Your task to perform on an android device: find which apps use the phone's location Image 0: 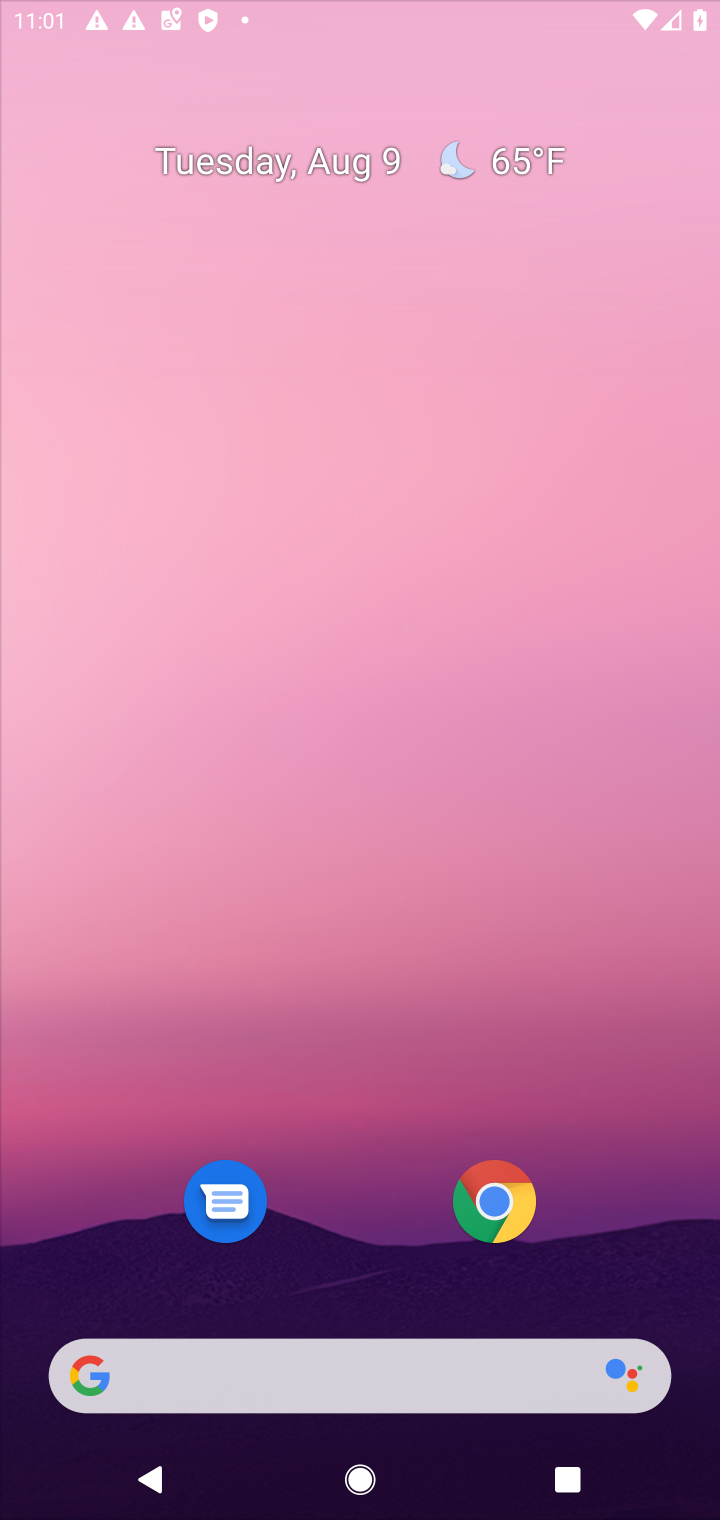
Step 0: press home button
Your task to perform on an android device: find which apps use the phone's location Image 1: 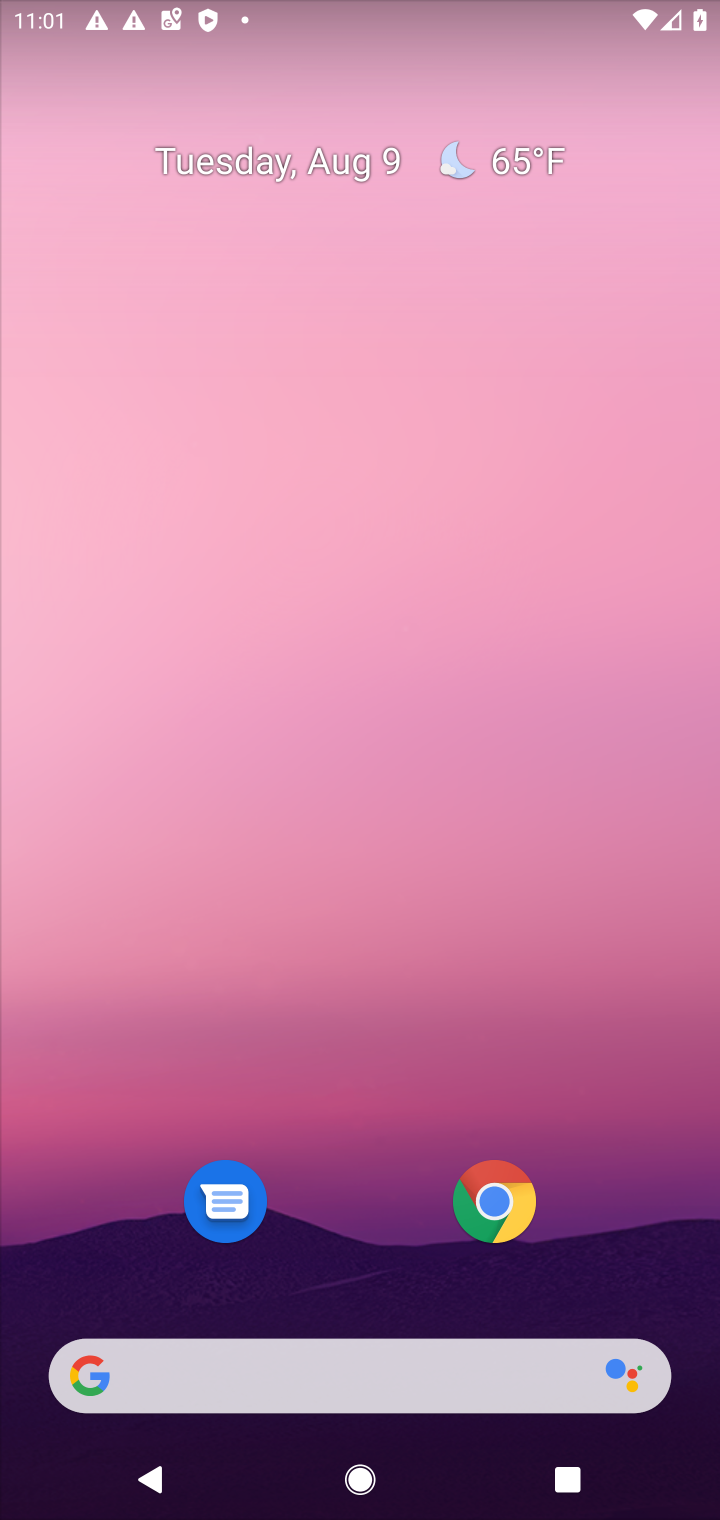
Step 1: drag from (341, 1090) to (369, 206)
Your task to perform on an android device: find which apps use the phone's location Image 2: 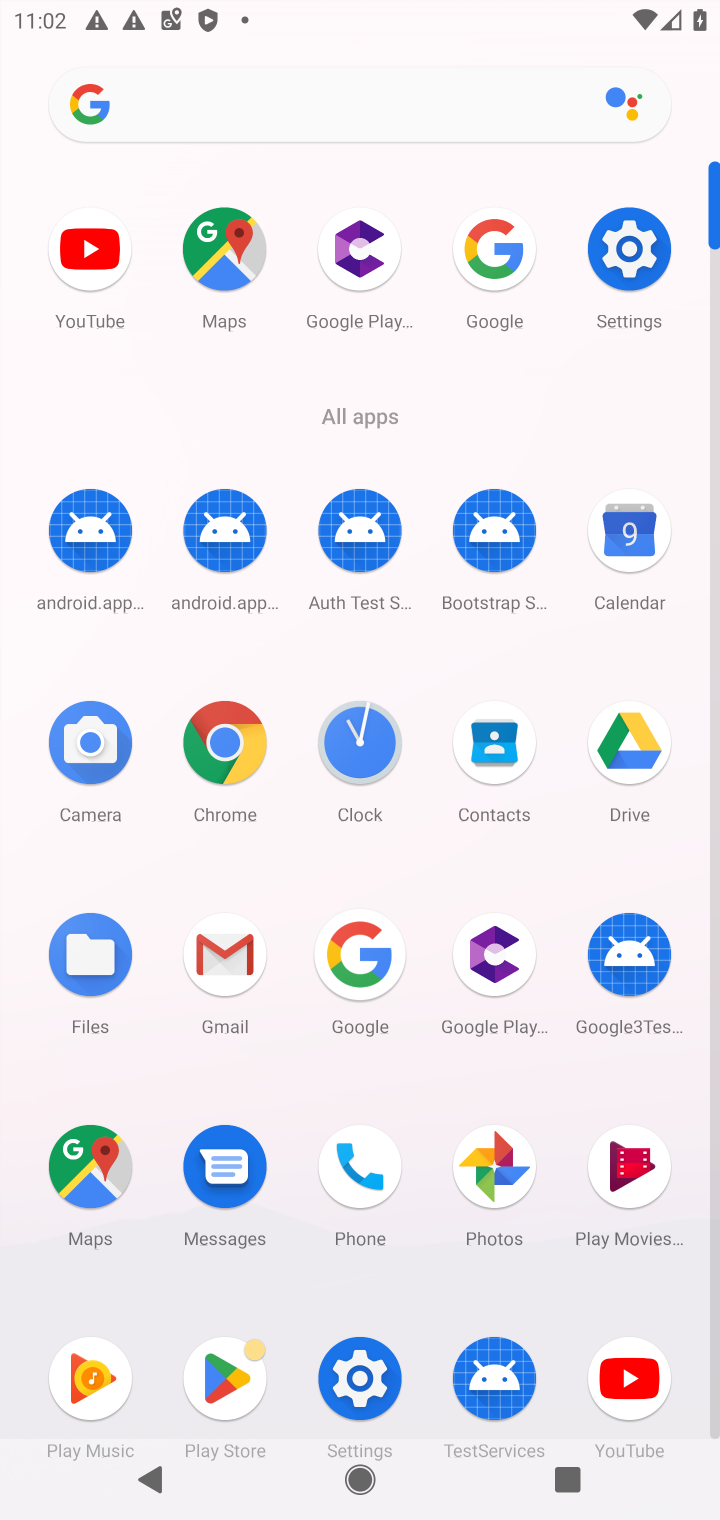
Step 2: click (625, 222)
Your task to perform on an android device: find which apps use the phone's location Image 3: 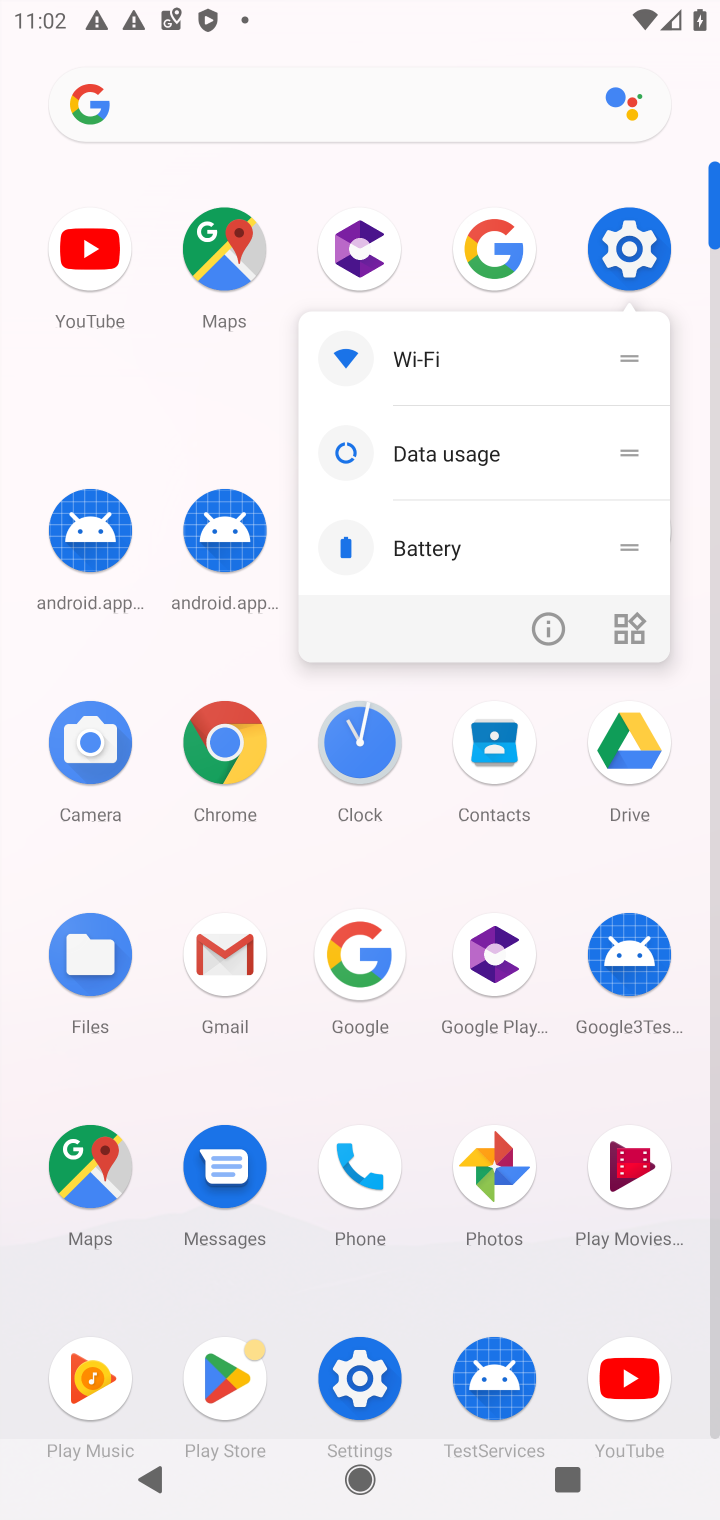
Step 3: click (658, 265)
Your task to perform on an android device: find which apps use the phone's location Image 4: 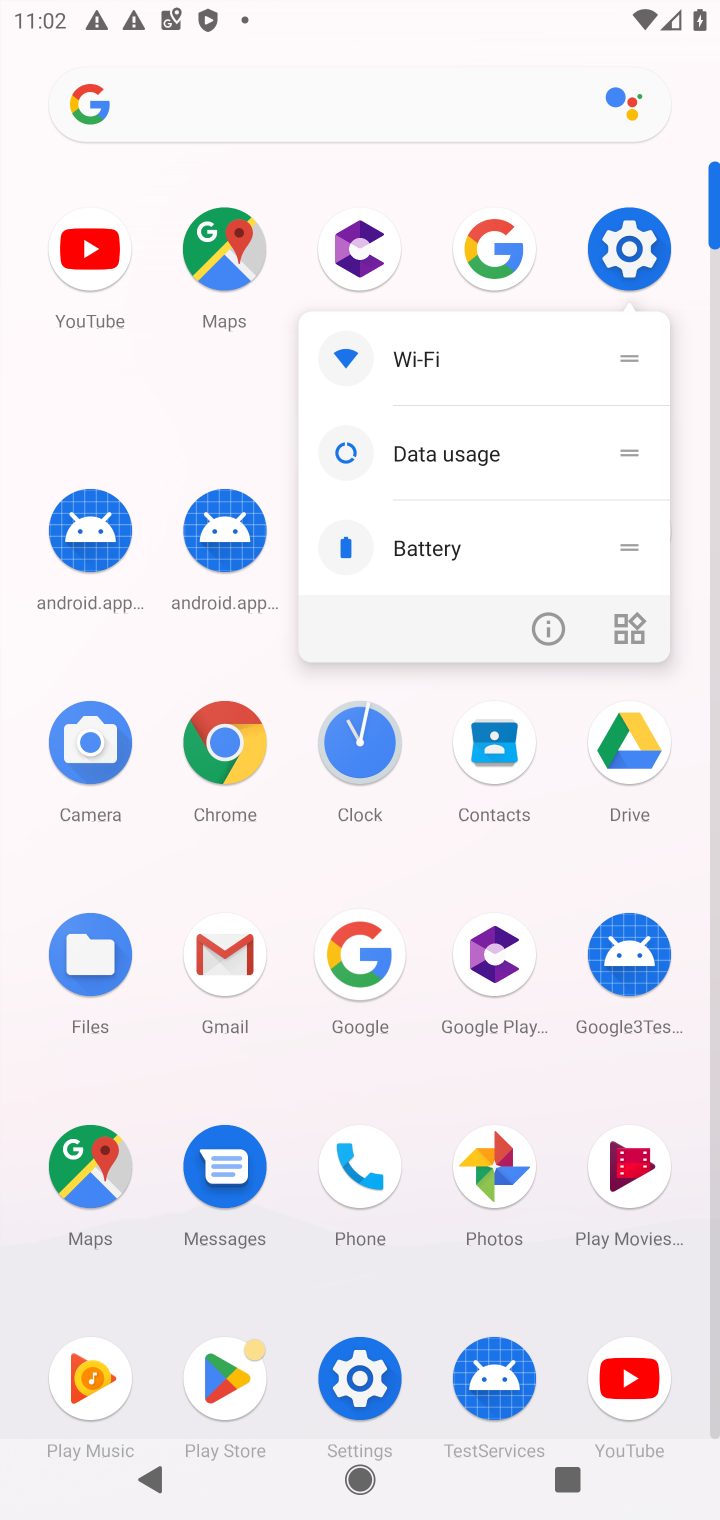
Step 4: click (642, 242)
Your task to perform on an android device: find which apps use the phone's location Image 5: 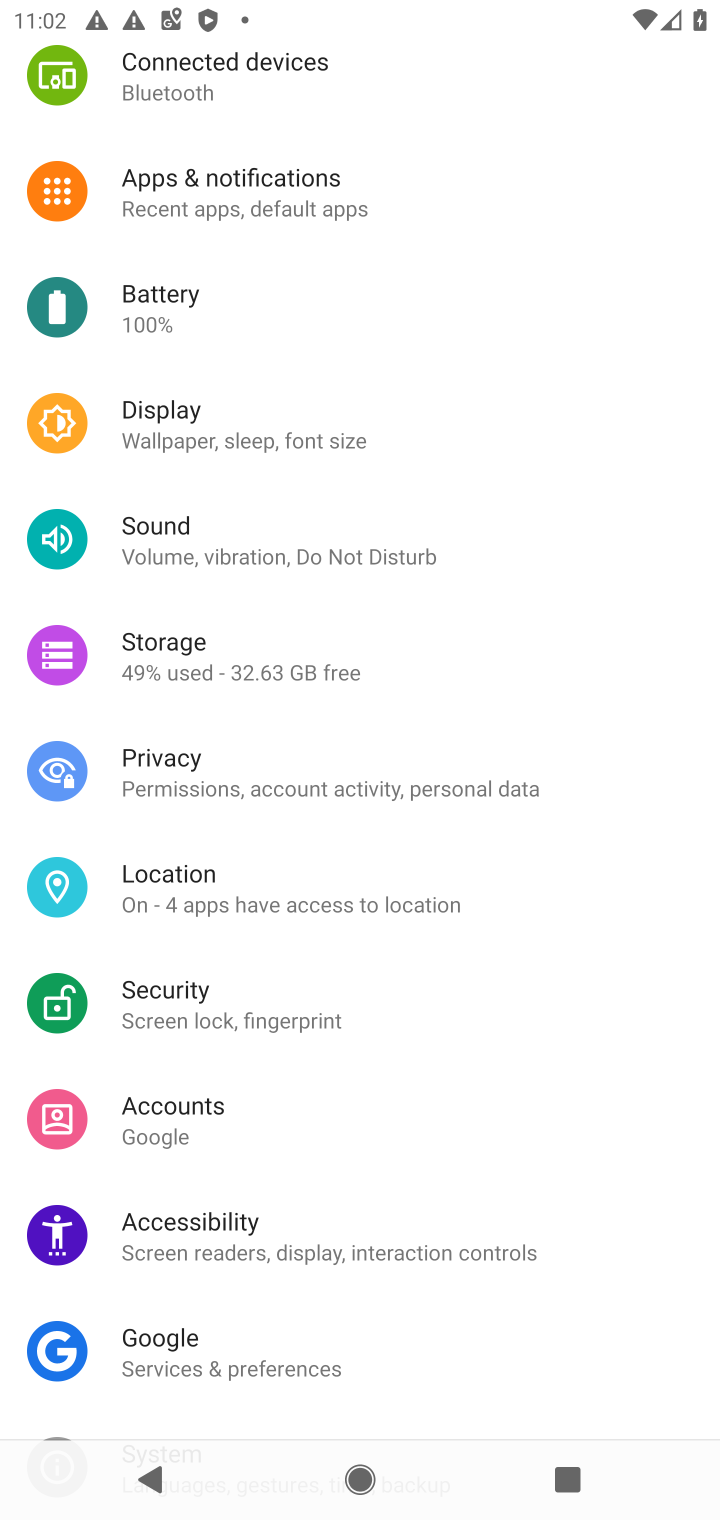
Step 5: click (208, 878)
Your task to perform on an android device: find which apps use the phone's location Image 6: 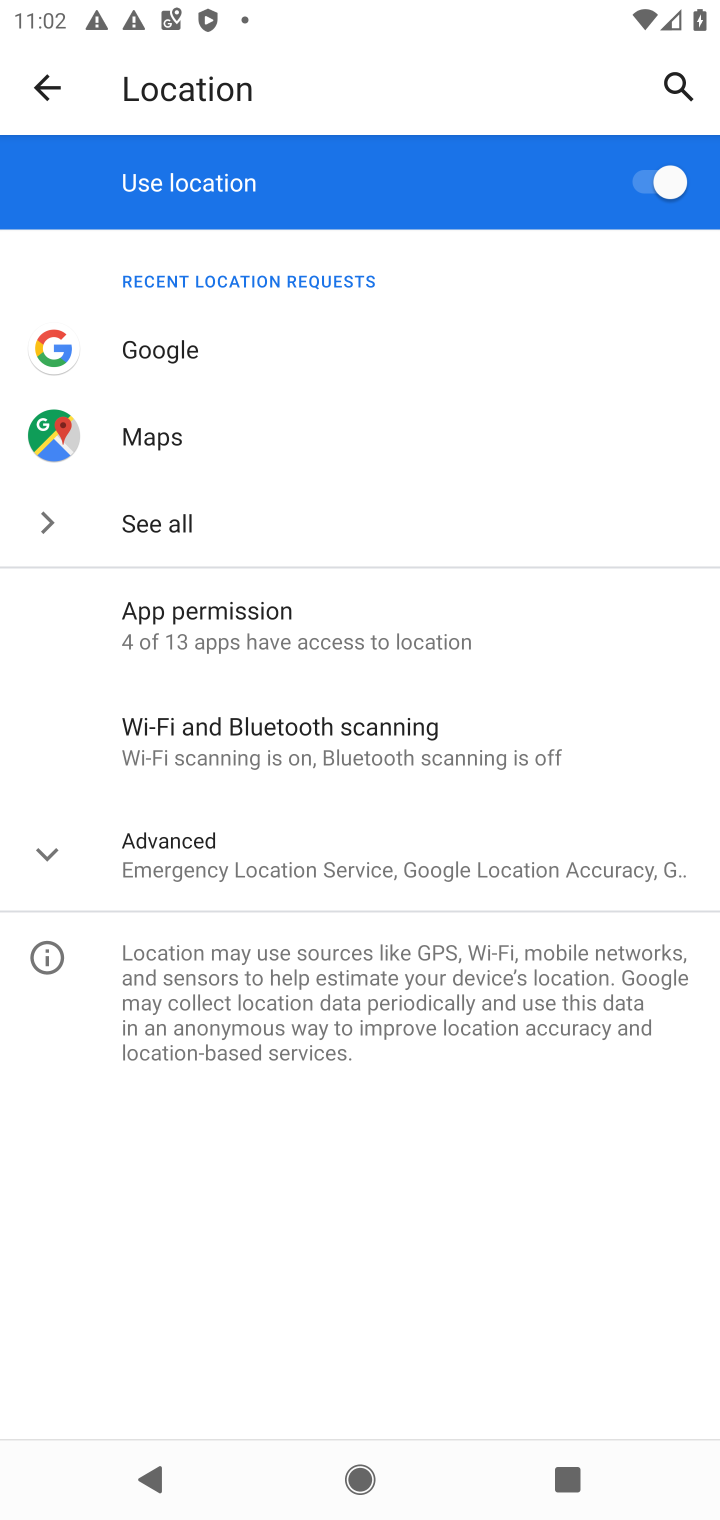
Step 6: click (192, 633)
Your task to perform on an android device: find which apps use the phone's location Image 7: 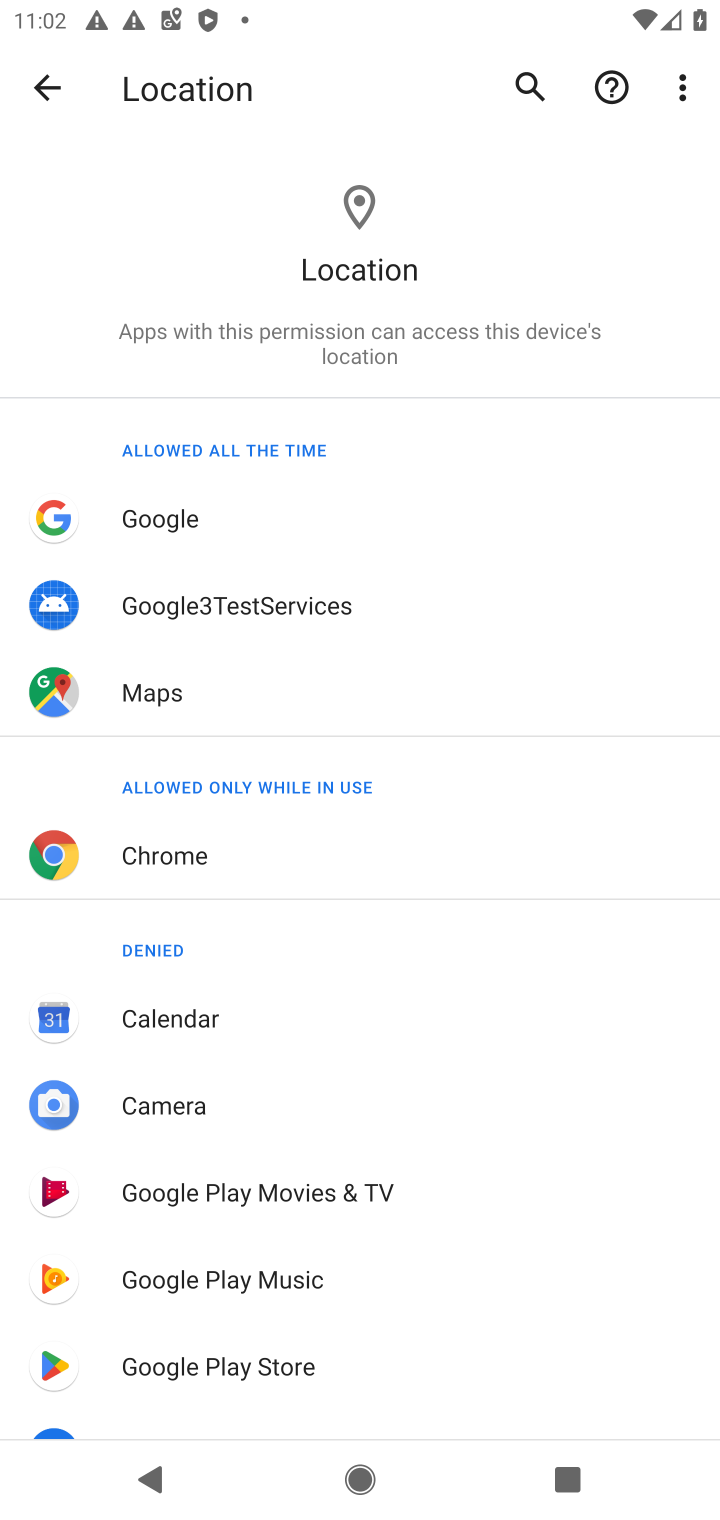
Step 7: task complete